Your task to perform on an android device: toggle airplane mode Image 0: 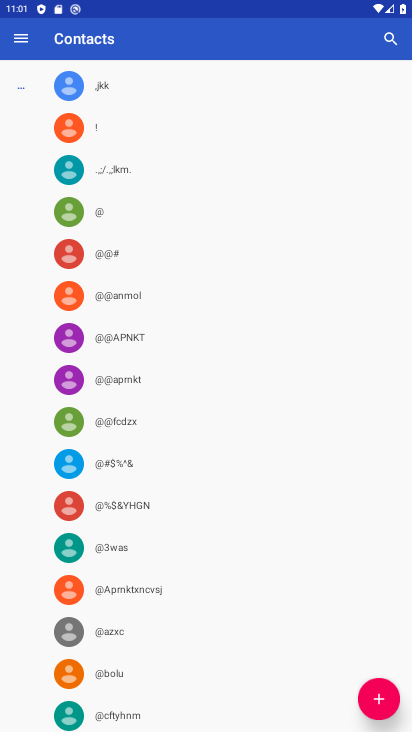
Step 0: press home button
Your task to perform on an android device: toggle airplane mode Image 1: 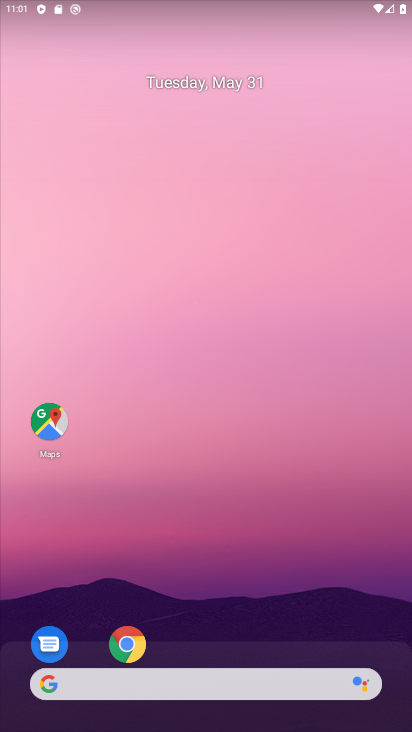
Step 1: drag from (261, 3) to (222, 725)
Your task to perform on an android device: toggle airplane mode Image 2: 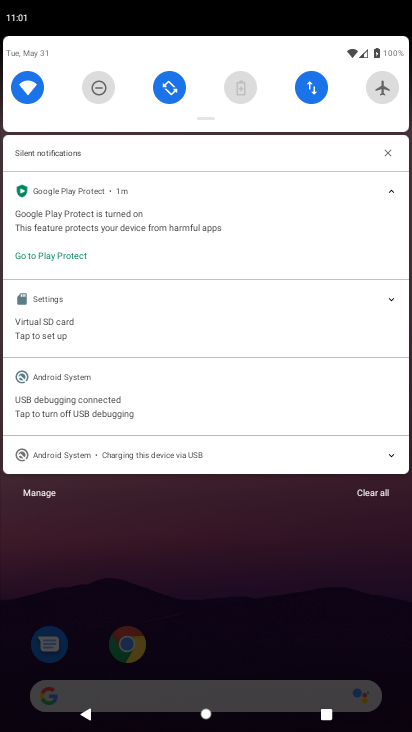
Step 2: click (385, 81)
Your task to perform on an android device: toggle airplane mode Image 3: 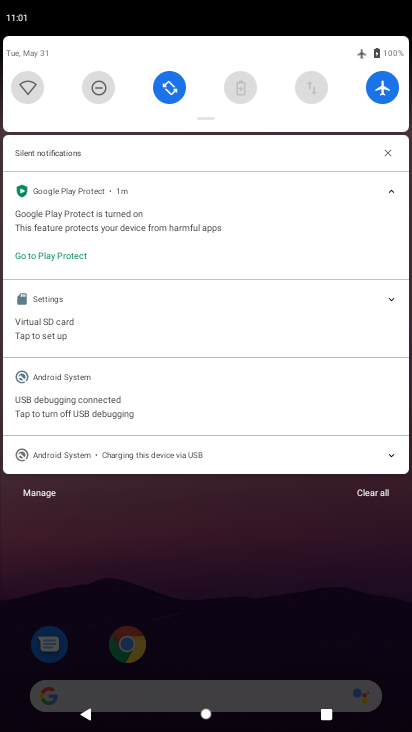
Step 3: task complete